Your task to perform on an android device: check out phone information Image 0: 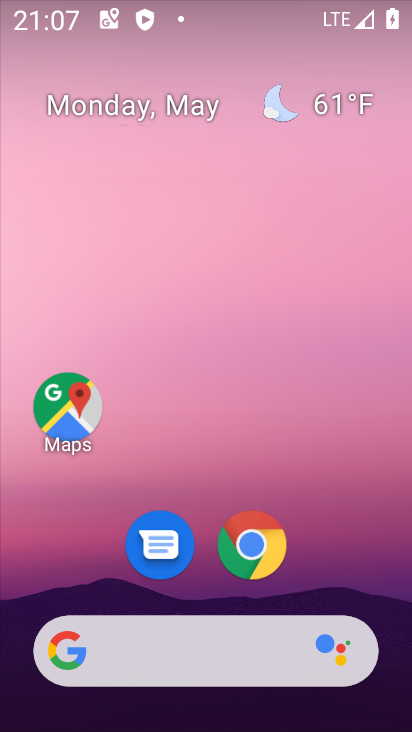
Step 0: drag from (247, 647) to (254, 127)
Your task to perform on an android device: check out phone information Image 1: 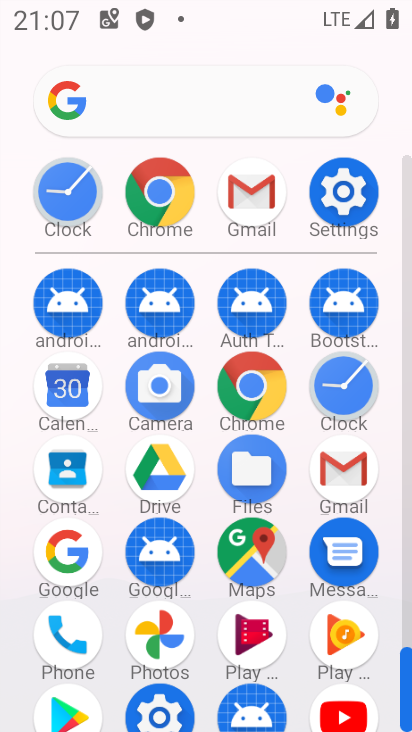
Step 1: click (354, 205)
Your task to perform on an android device: check out phone information Image 2: 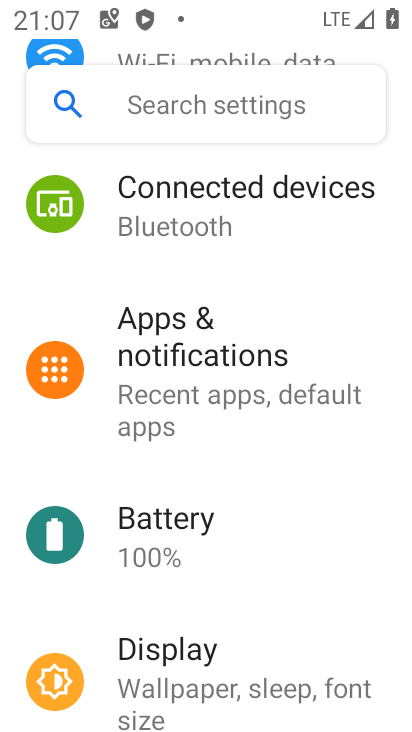
Step 2: drag from (200, 637) to (158, 14)
Your task to perform on an android device: check out phone information Image 3: 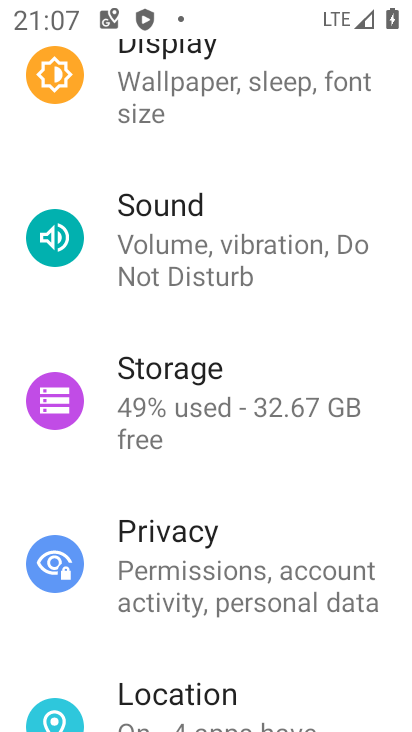
Step 3: drag from (199, 661) to (229, 9)
Your task to perform on an android device: check out phone information Image 4: 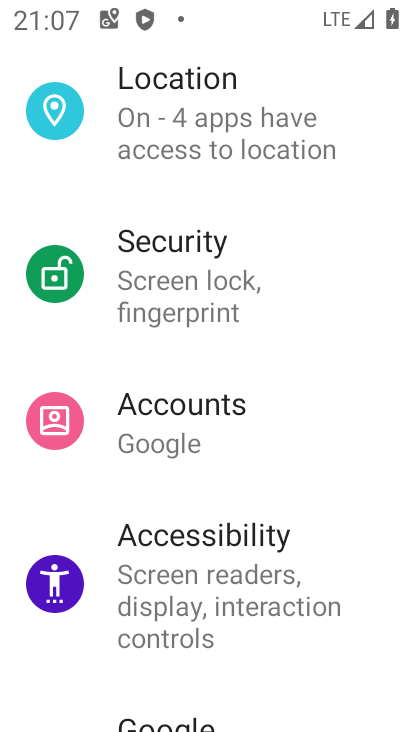
Step 4: drag from (198, 653) to (152, 15)
Your task to perform on an android device: check out phone information Image 5: 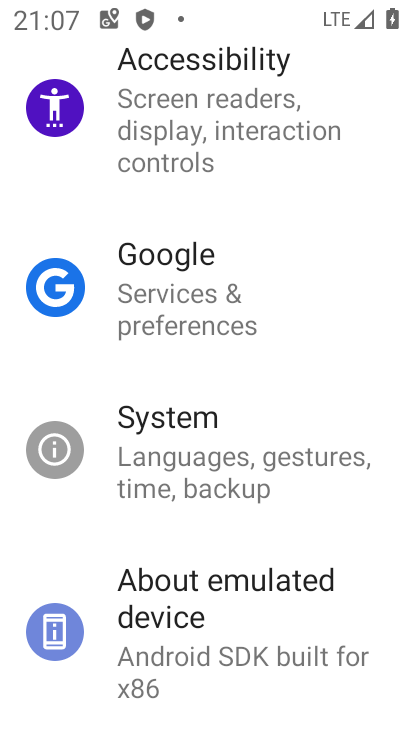
Step 5: click (236, 649)
Your task to perform on an android device: check out phone information Image 6: 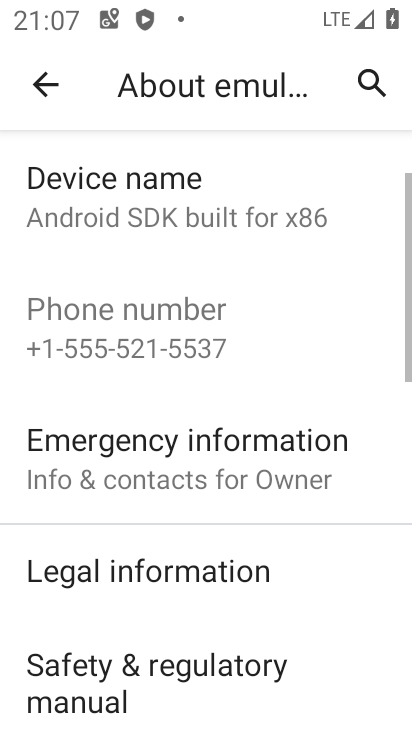
Step 6: task complete